Your task to perform on an android device: Open Google Chrome and open the bookmarks view Image 0: 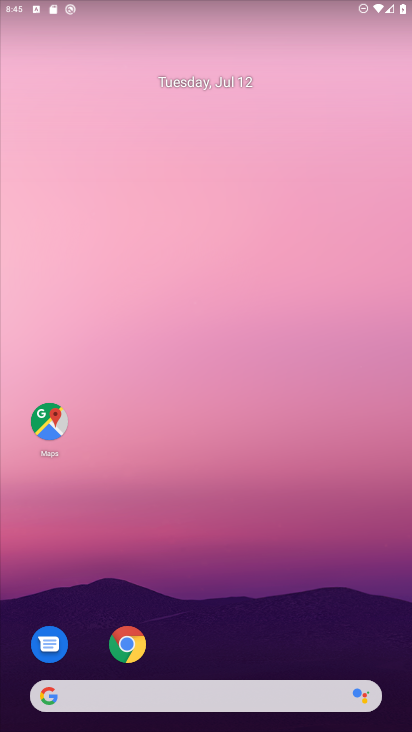
Step 0: click (131, 646)
Your task to perform on an android device: Open Google Chrome and open the bookmarks view Image 1: 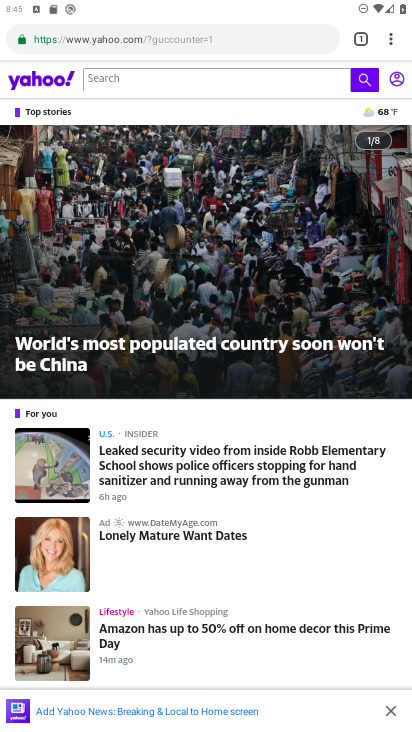
Step 1: click (390, 41)
Your task to perform on an android device: Open Google Chrome and open the bookmarks view Image 2: 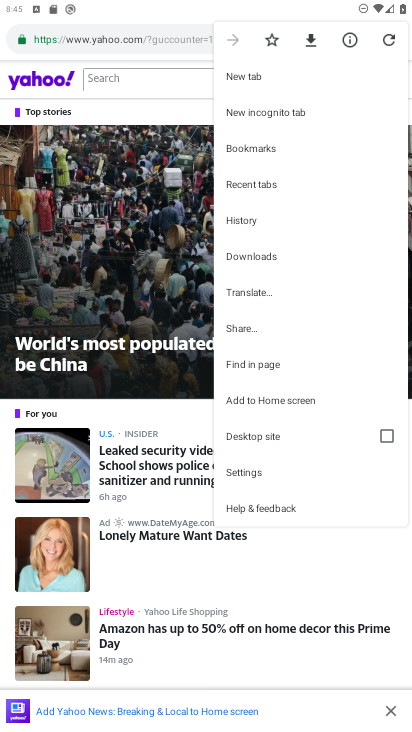
Step 2: click (244, 147)
Your task to perform on an android device: Open Google Chrome and open the bookmarks view Image 3: 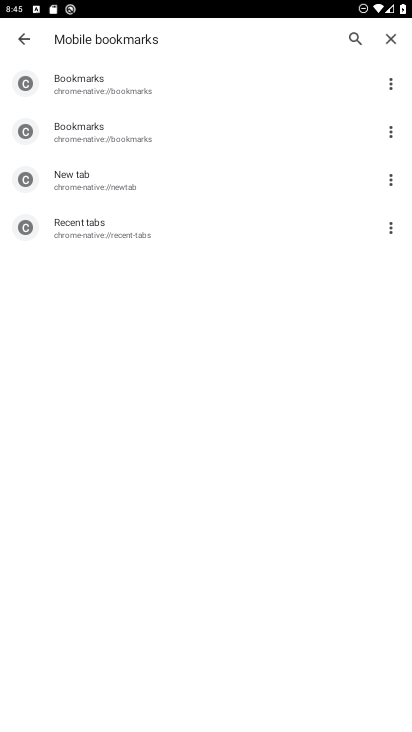
Step 3: click (75, 73)
Your task to perform on an android device: Open Google Chrome and open the bookmarks view Image 4: 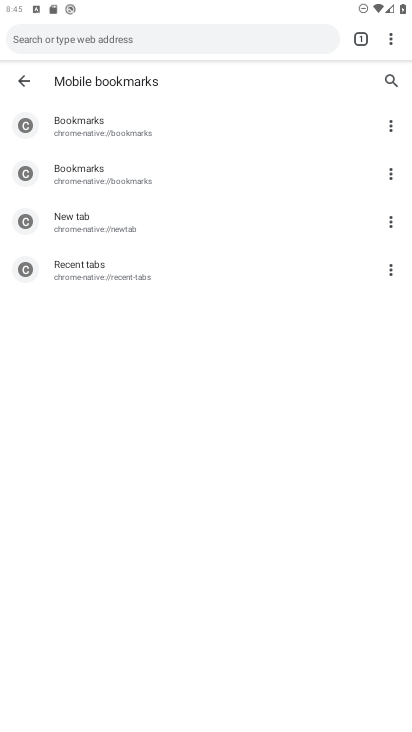
Step 4: click (67, 129)
Your task to perform on an android device: Open Google Chrome and open the bookmarks view Image 5: 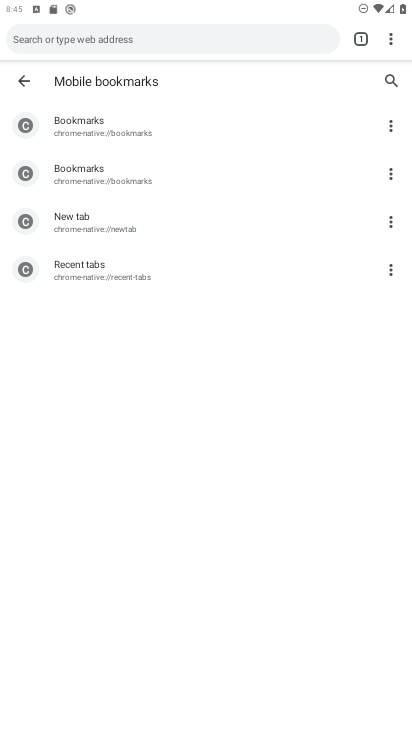
Step 5: task complete